Your task to perform on an android device: Open the calendar app, open the side menu, and click the "Day" option Image 0: 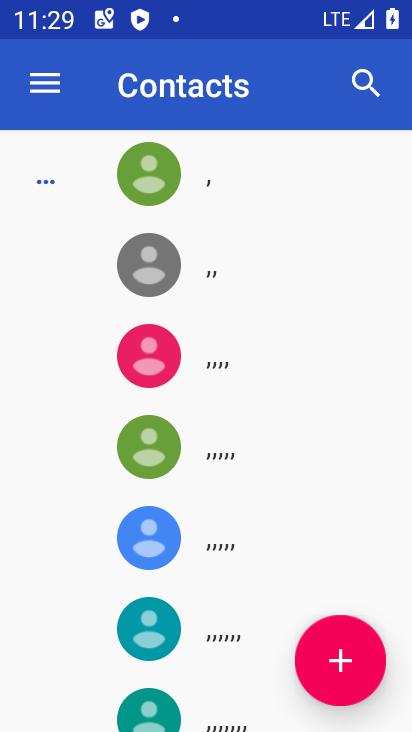
Step 0: press home button
Your task to perform on an android device: Open the calendar app, open the side menu, and click the "Day" option Image 1: 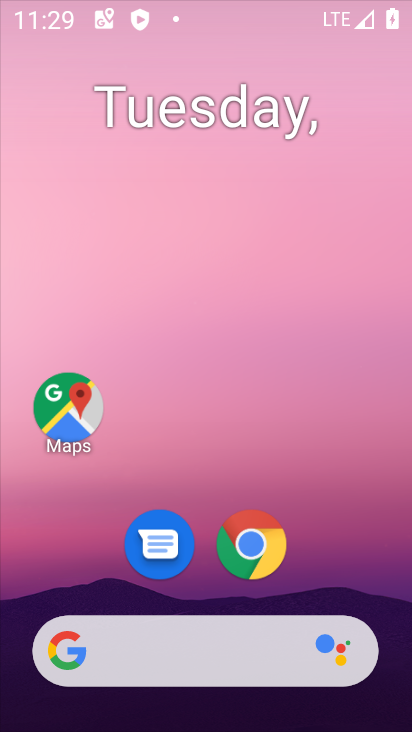
Step 1: click (364, 650)
Your task to perform on an android device: Open the calendar app, open the side menu, and click the "Day" option Image 2: 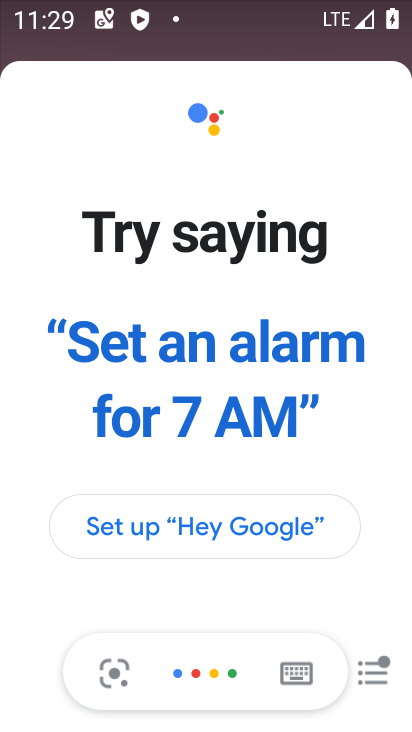
Step 2: drag from (384, 635) to (356, 193)
Your task to perform on an android device: Open the calendar app, open the side menu, and click the "Day" option Image 3: 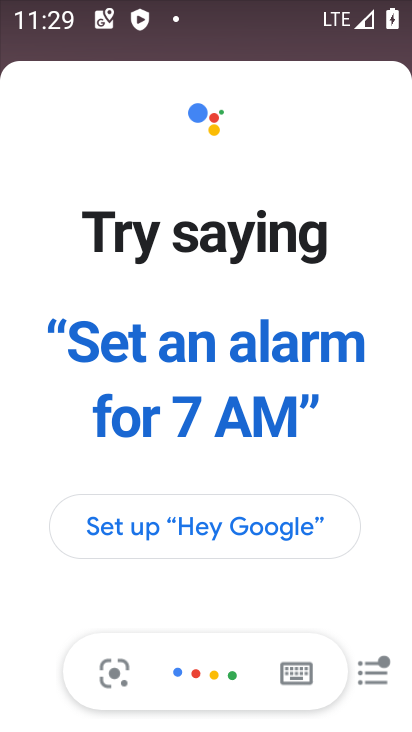
Step 3: press home button
Your task to perform on an android device: Open the calendar app, open the side menu, and click the "Day" option Image 4: 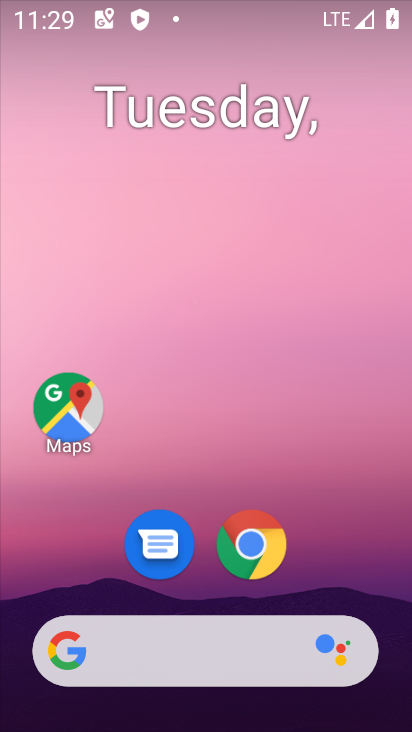
Step 4: drag from (397, 652) to (299, 82)
Your task to perform on an android device: Open the calendar app, open the side menu, and click the "Day" option Image 5: 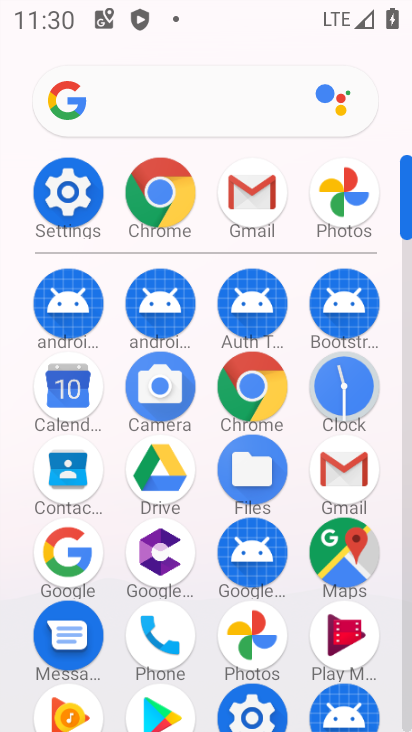
Step 5: click (47, 403)
Your task to perform on an android device: Open the calendar app, open the side menu, and click the "Day" option Image 6: 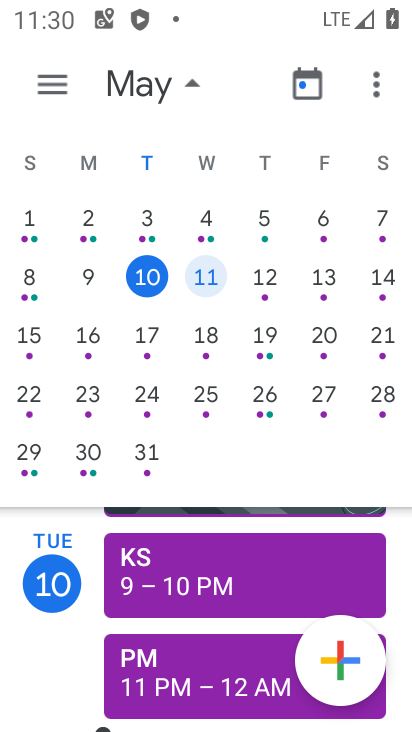
Step 6: click (45, 91)
Your task to perform on an android device: Open the calendar app, open the side menu, and click the "Day" option Image 7: 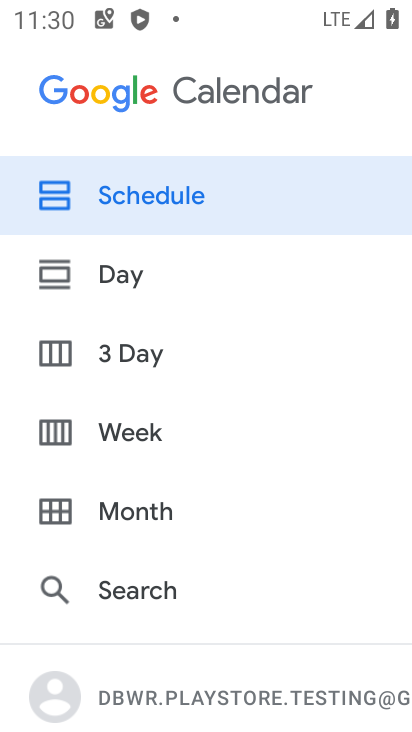
Step 7: click (99, 269)
Your task to perform on an android device: Open the calendar app, open the side menu, and click the "Day" option Image 8: 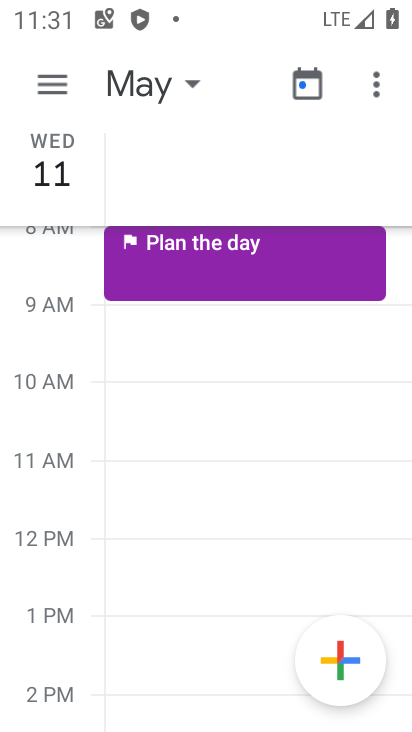
Step 8: task complete